Your task to perform on an android device: change keyboard looks Image 0: 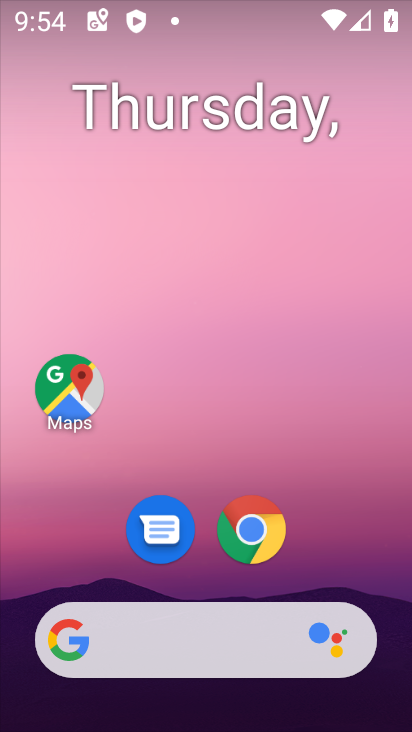
Step 0: drag from (149, 684) to (273, 10)
Your task to perform on an android device: change keyboard looks Image 1: 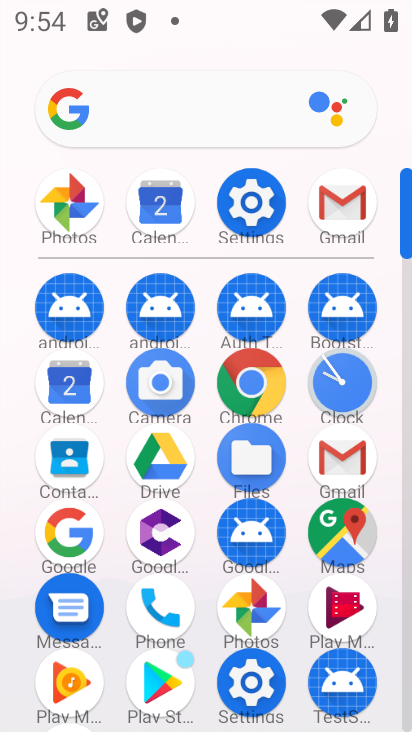
Step 1: click (263, 179)
Your task to perform on an android device: change keyboard looks Image 2: 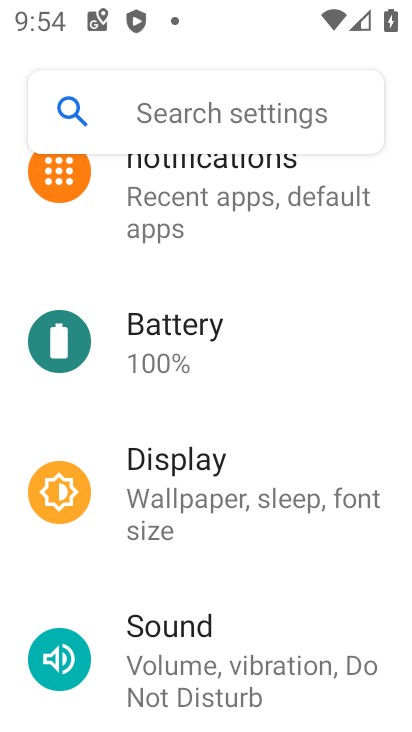
Step 2: drag from (323, 592) to (305, 13)
Your task to perform on an android device: change keyboard looks Image 3: 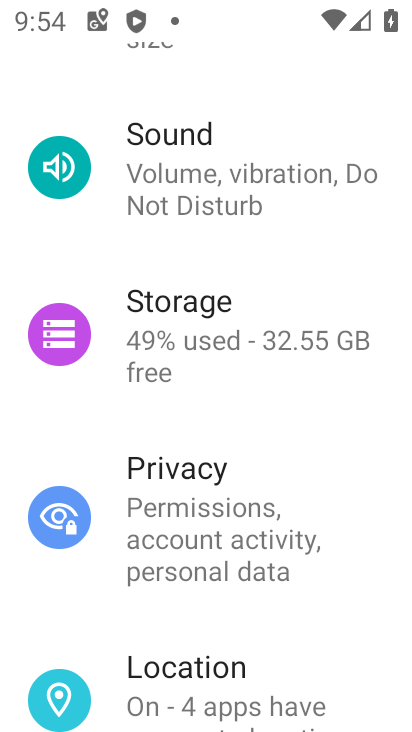
Step 3: drag from (304, 653) to (248, 45)
Your task to perform on an android device: change keyboard looks Image 4: 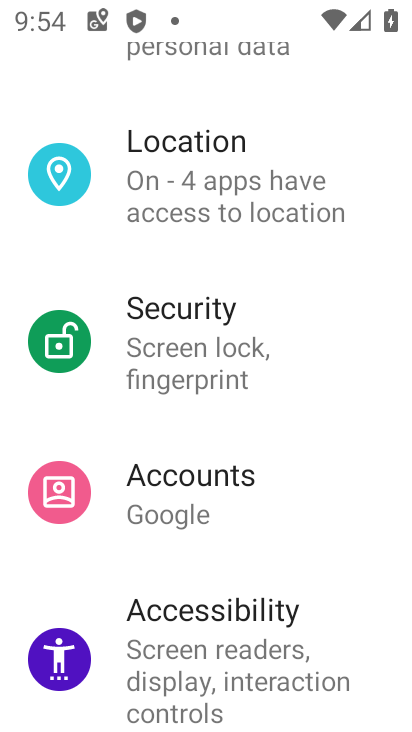
Step 4: drag from (304, 665) to (251, 1)
Your task to perform on an android device: change keyboard looks Image 5: 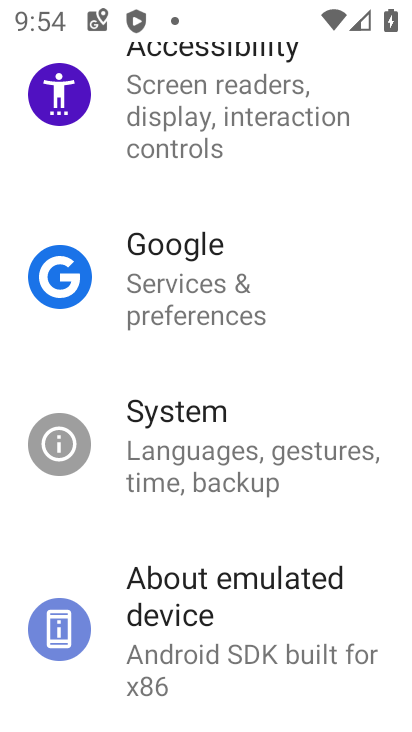
Step 5: drag from (304, 651) to (294, 14)
Your task to perform on an android device: change keyboard looks Image 6: 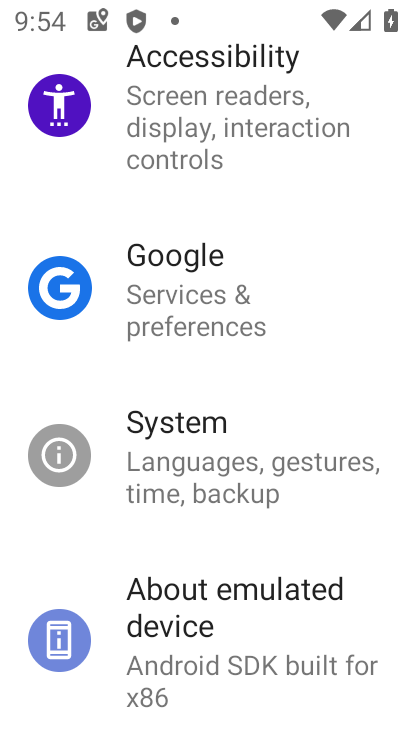
Step 6: click (243, 471)
Your task to perform on an android device: change keyboard looks Image 7: 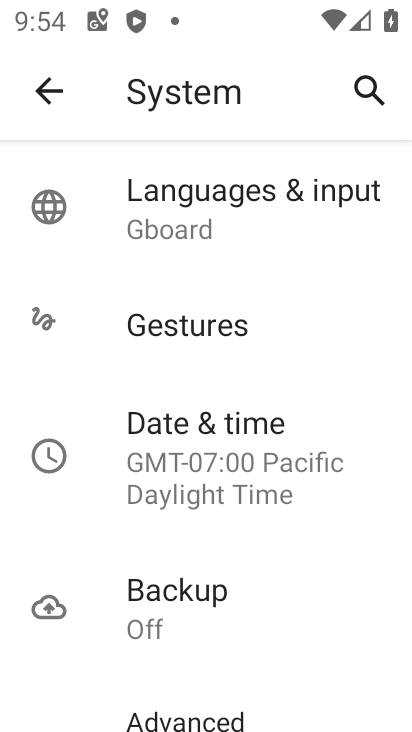
Step 7: click (245, 209)
Your task to perform on an android device: change keyboard looks Image 8: 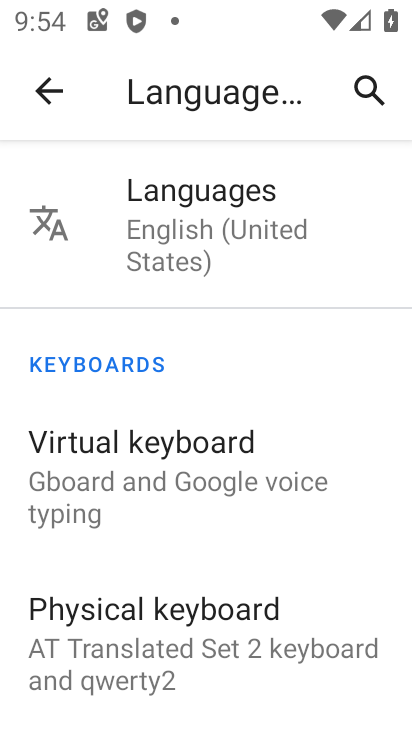
Step 8: click (166, 469)
Your task to perform on an android device: change keyboard looks Image 9: 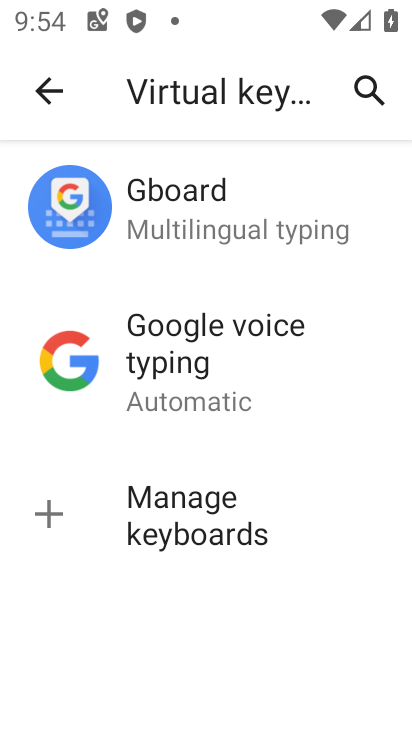
Step 9: click (259, 210)
Your task to perform on an android device: change keyboard looks Image 10: 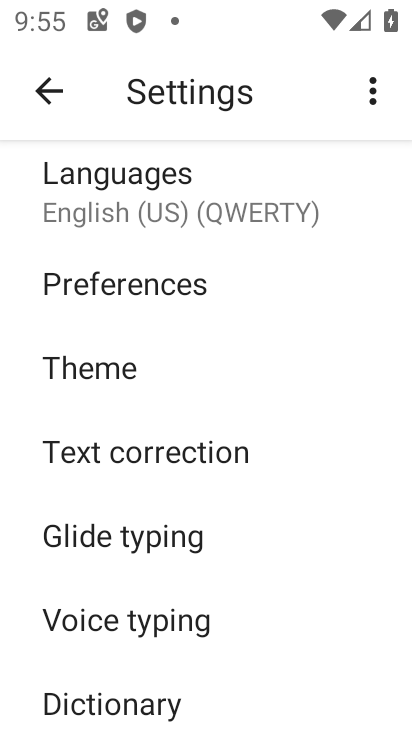
Step 10: click (97, 377)
Your task to perform on an android device: change keyboard looks Image 11: 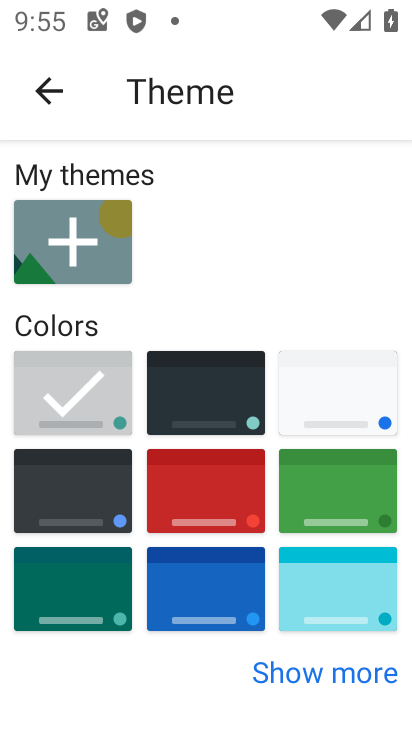
Step 11: click (222, 512)
Your task to perform on an android device: change keyboard looks Image 12: 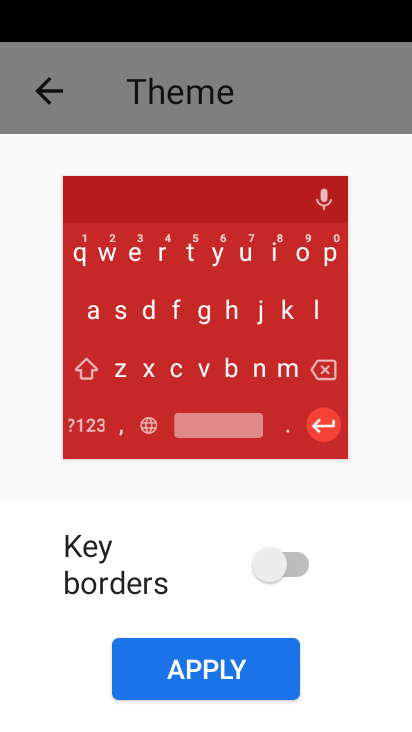
Step 12: click (238, 660)
Your task to perform on an android device: change keyboard looks Image 13: 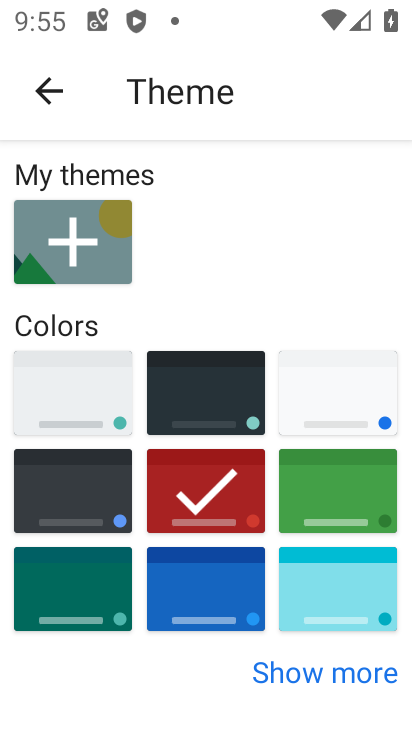
Step 13: task complete